Your task to perform on an android device: Open ESPN.com Image 0: 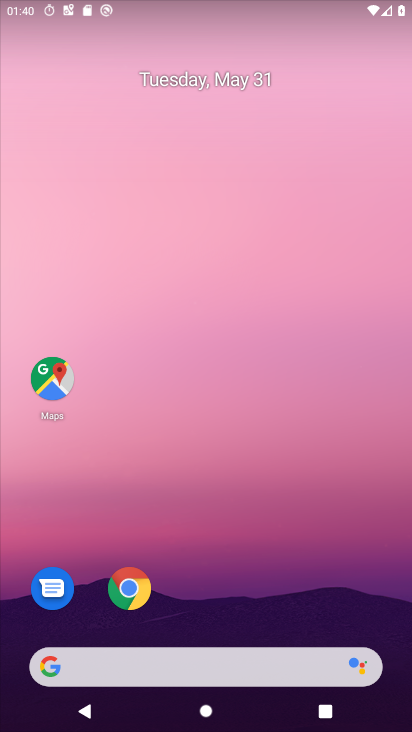
Step 0: drag from (350, 642) to (382, 51)
Your task to perform on an android device: Open ESPN.com Image 1: 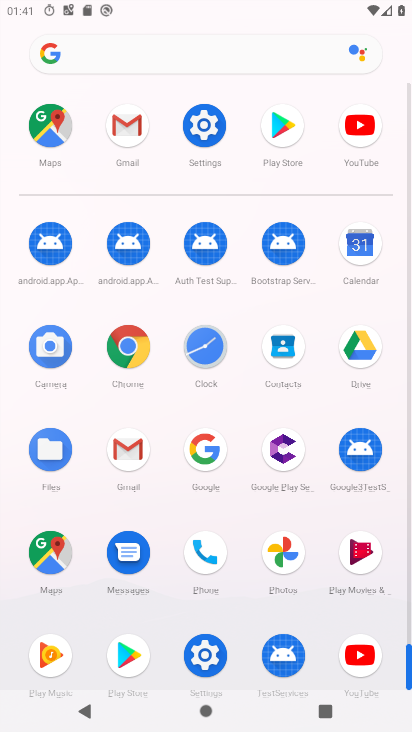
Step 1: click (119, 358)
Your task to perform on an android device: Open ESPN.com Image 2: 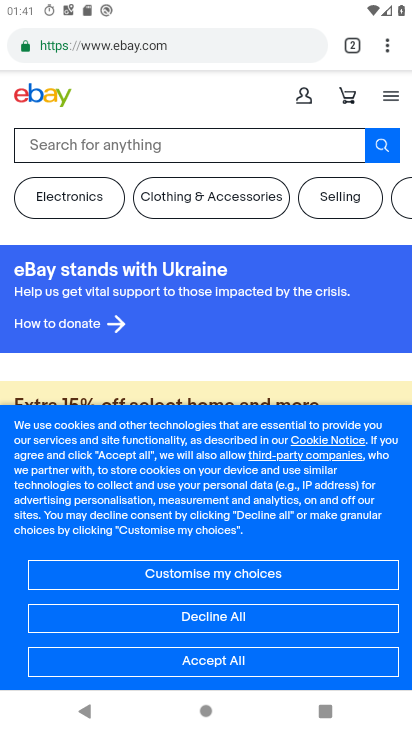
Step 2: task complete